Your task to perform on an android device: turn off smart reply in the gmail app Image 0: 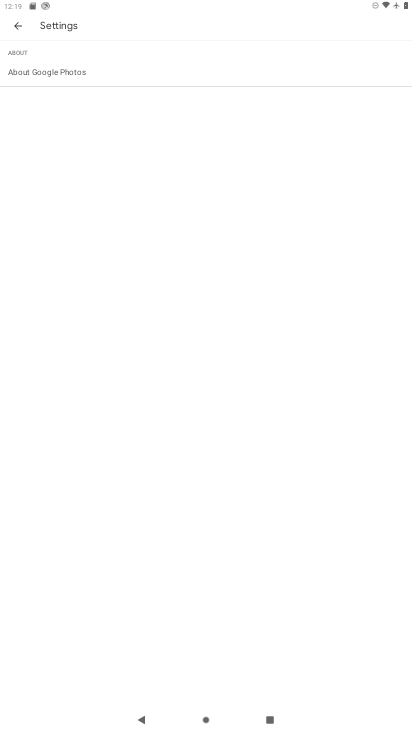
Step 0: press home button
Your task to perform on an android device: turn off smart reply in the gmail app Image 1: 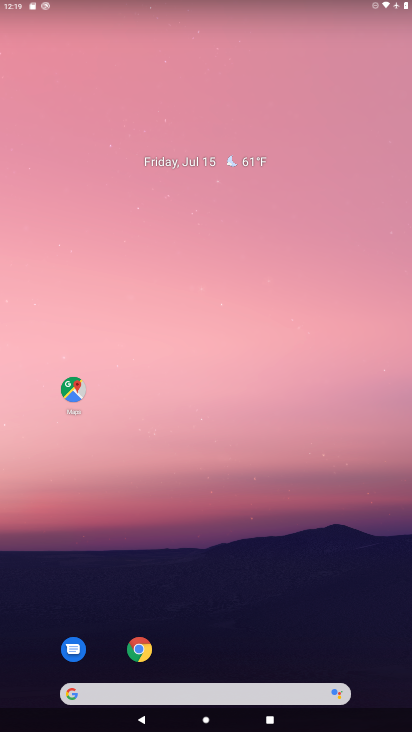
Step 1: drag from (235, 621) to (275, 12)
Your task to perform on an android device: turn off smart reply in the gmail app Image 2: 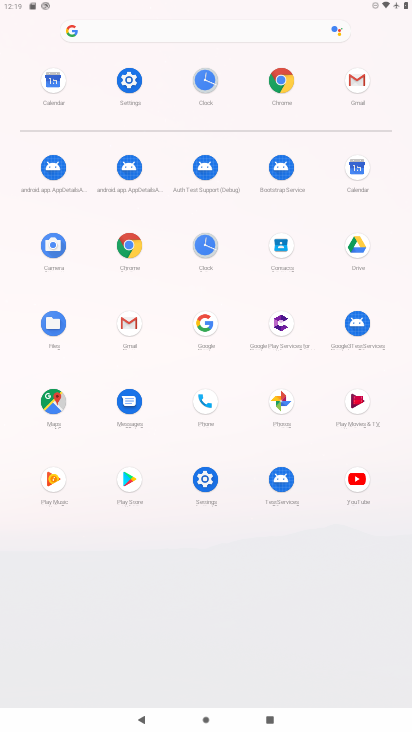
Step 2: click (358, 82)
Your task to perform on an android device: turn off smart reply in the gmail app Image 3: 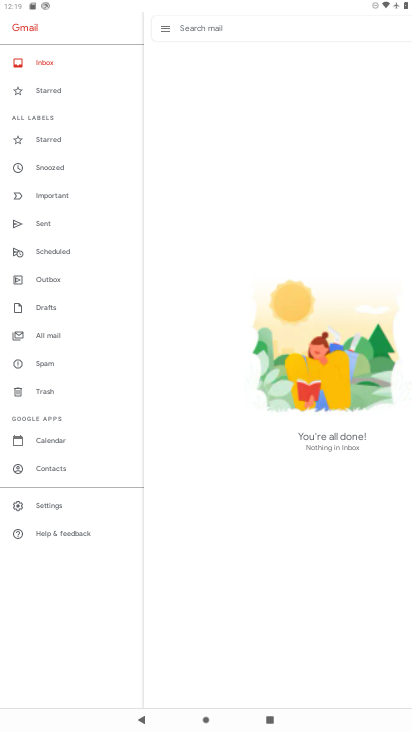
Step 3: click (52, 504)
Your task to perform on an android device: turn off smart reply in the gmail app Image 4: 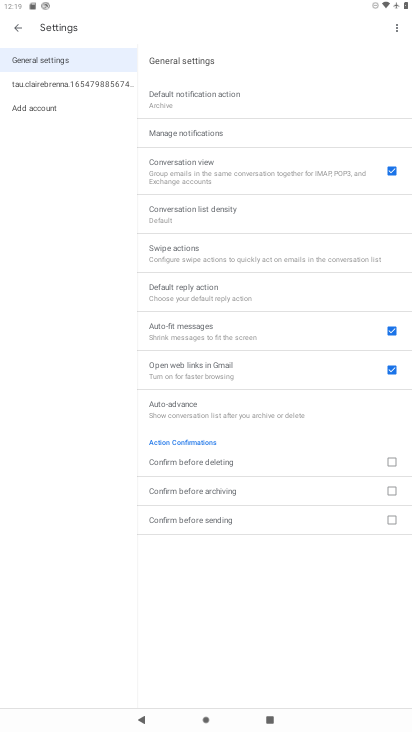
Step 4: click (50, 88)
Your task to perform on an android device: turn off smart reply in the gmail app Image 5: 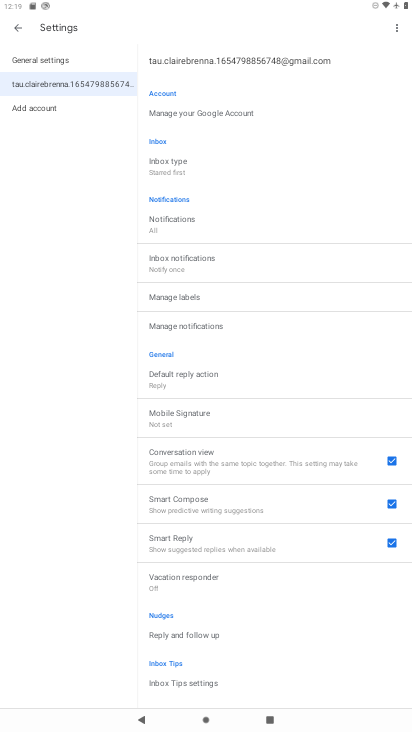
Step 5: click (391, 544)
Your task to perform on an android device: turn off smart reply in the gmail app Image 6: 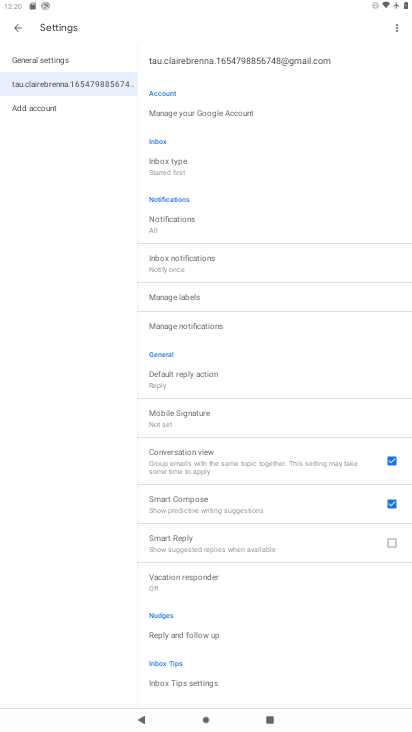
Step 6: task complete